Your task to perform on an android device: Show me the alarms in the clock app Image 0: 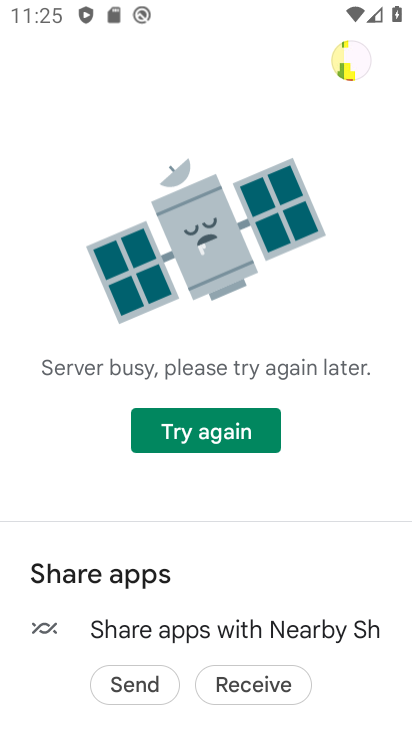
Step 0: press home button
Your task to perform on an android device: Show me the alarms in the clock app Image 1: 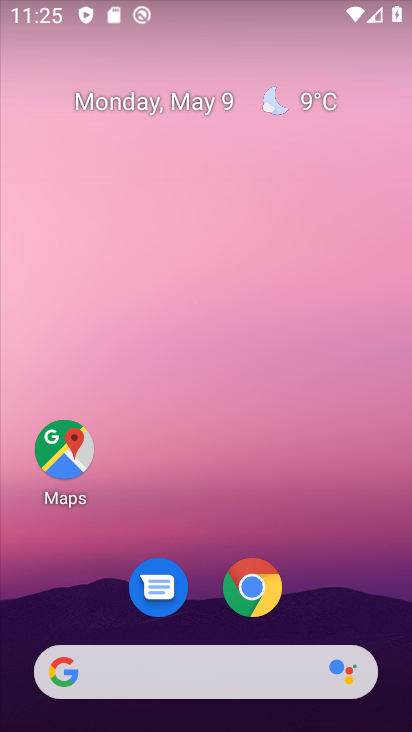
Step 1: drag from (119, 603) to (18, 355)
Your task to perform on an android device: Show me the alarms in the clock app Image 2: 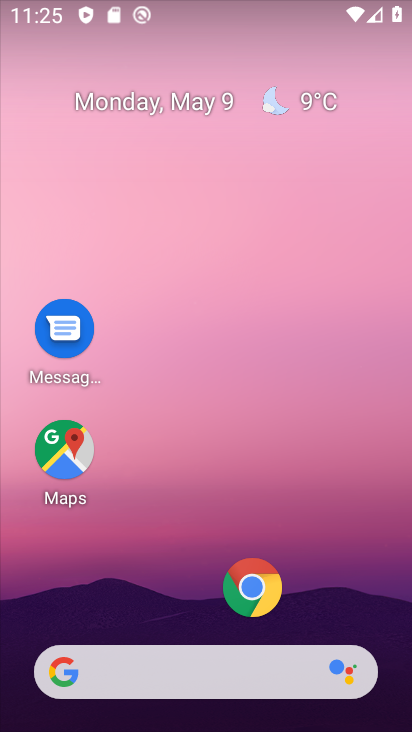
Step 2: drag from (174, 577) to (212, 275)
Your task to perform on an android device: Show me the alarms in the clock app Image 3: 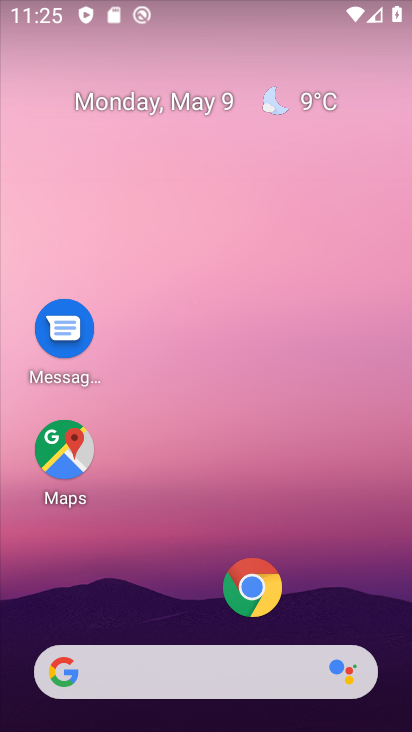
Step 3: drag from (203, 607) to (221, 215)
Your task to perform on an android device: Show me the alarms in the clock app Image 4: 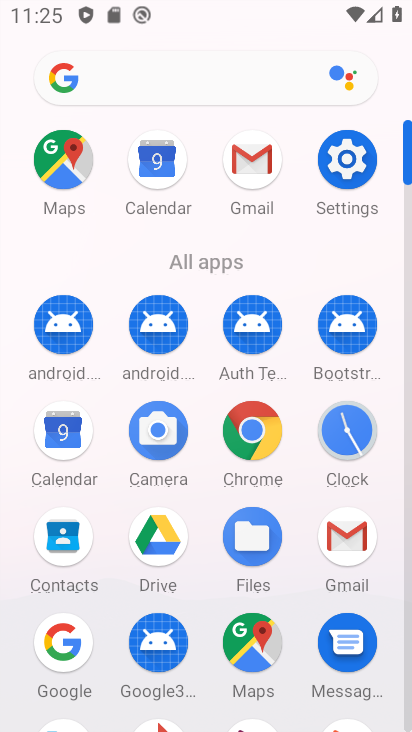
Step 4: click (349, 436)
Your task to perform on an android device: Show me the alarms in the clock app Image 5: 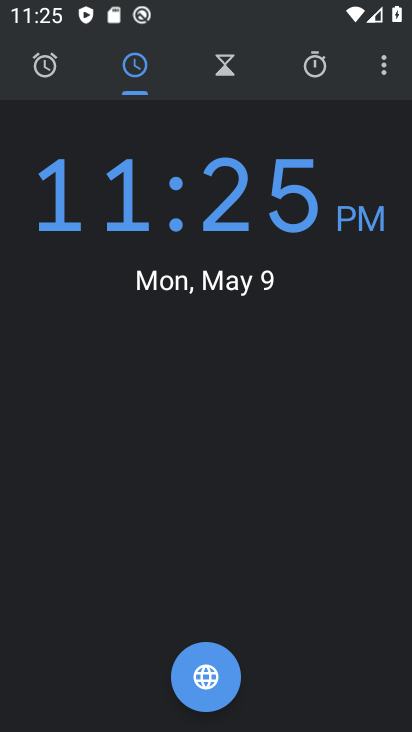
Step 5: click (39, 88)
Your task to perform on an android device: Show me the alarms in the clock app Image 6: 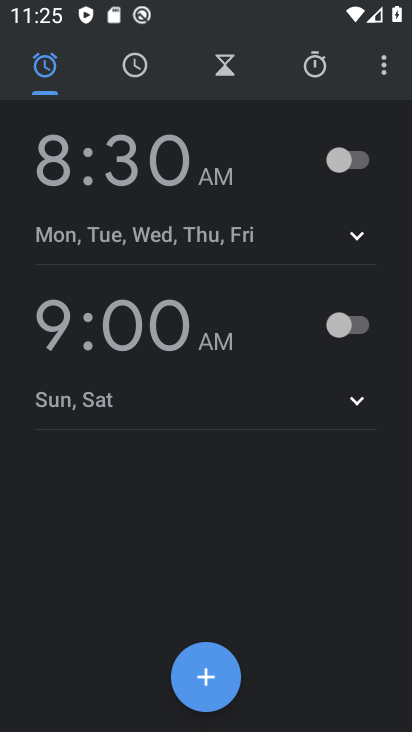
Step 6: task complete